Your task to perform on an android device: open device folders in google photos Image 0: 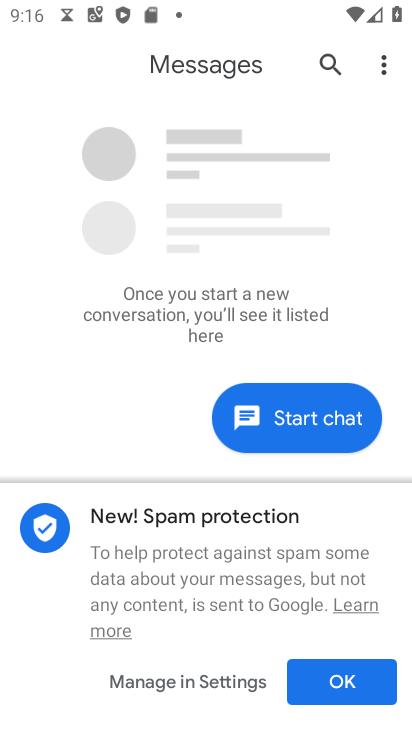
Step 0: press home button
Your task to perform on an android device: open device folders in google photos Image 1: 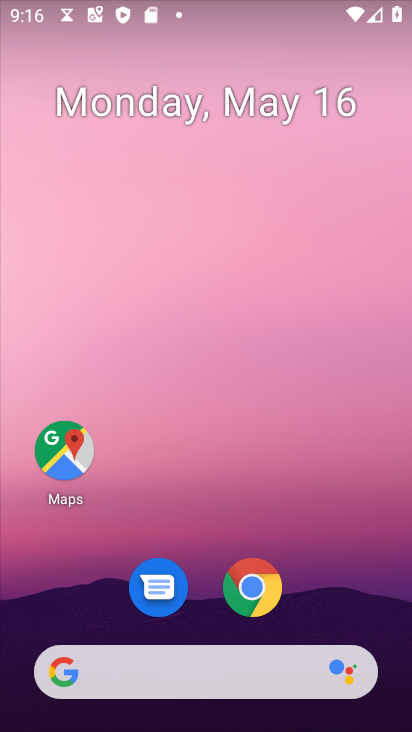
Step 1: drag from (336, 597) to (281, 247)
Your task to perform on an android device: open device folders in google photos Image 2: 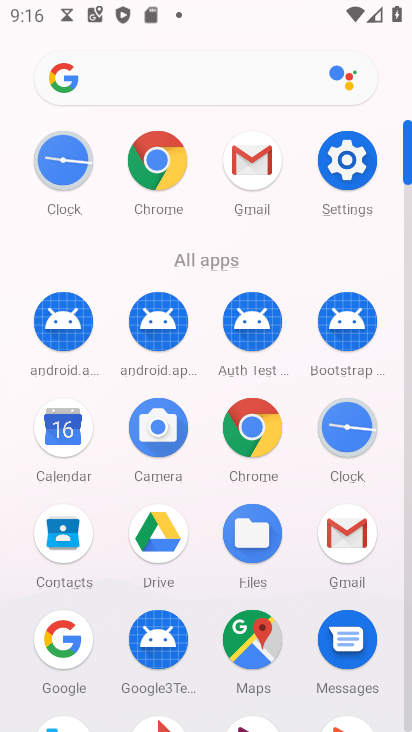
Step 2: click (404, 631)
Your task to perform on an android device: open device folders in google photos Image 3: 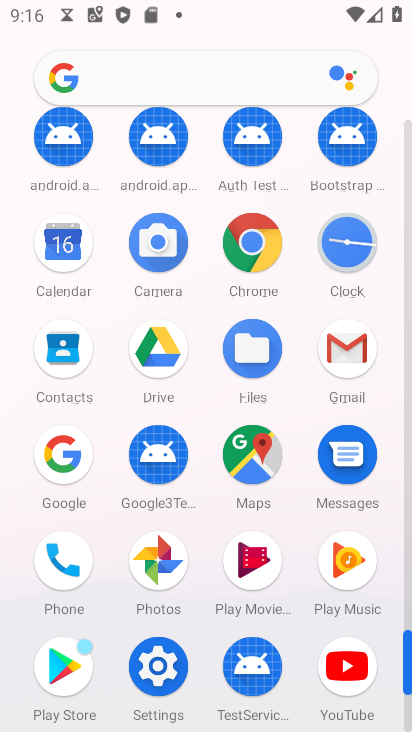
Step 3: click (172, 560)
Your task to perform on an android device: open device folders in google photos Image 4: 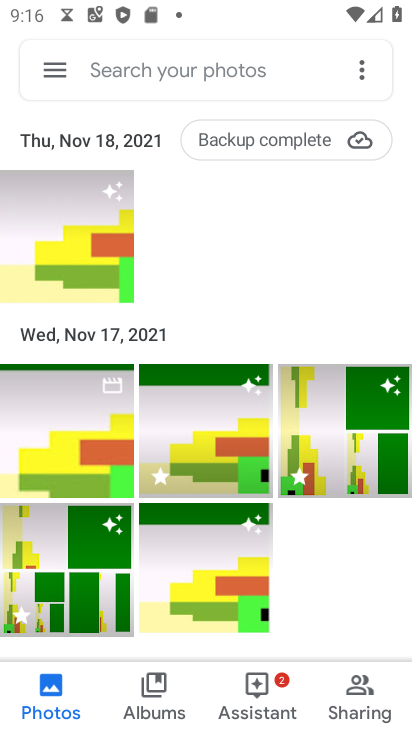
Step 4: click (57, 79)
Your task to perform on an android device: open device folders in google photos Image 5: 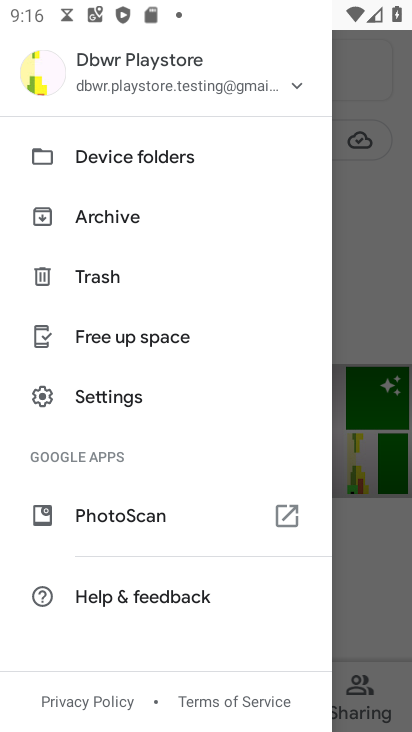
Step 5: click (99, 151)
Your task to perform on an android device: open device folders in google photos Image 6: 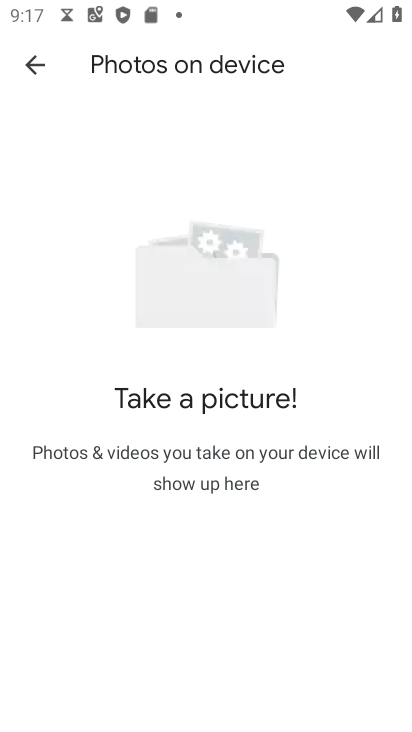
Step 6: task complete